Your task to perform on an android device: Add macbook air to the cart on bestbuy.com, then select checkout. Image 0: 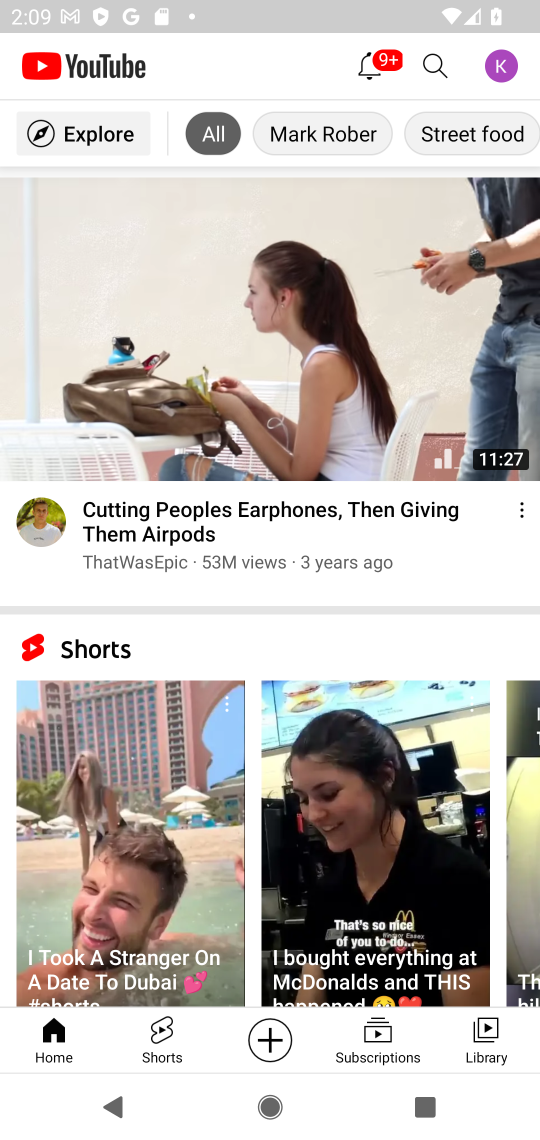
Step 0: press home button
Your task to perform on an android device: Add macbook air to the cart on bestbuy.com, then select checkout. Image 1: 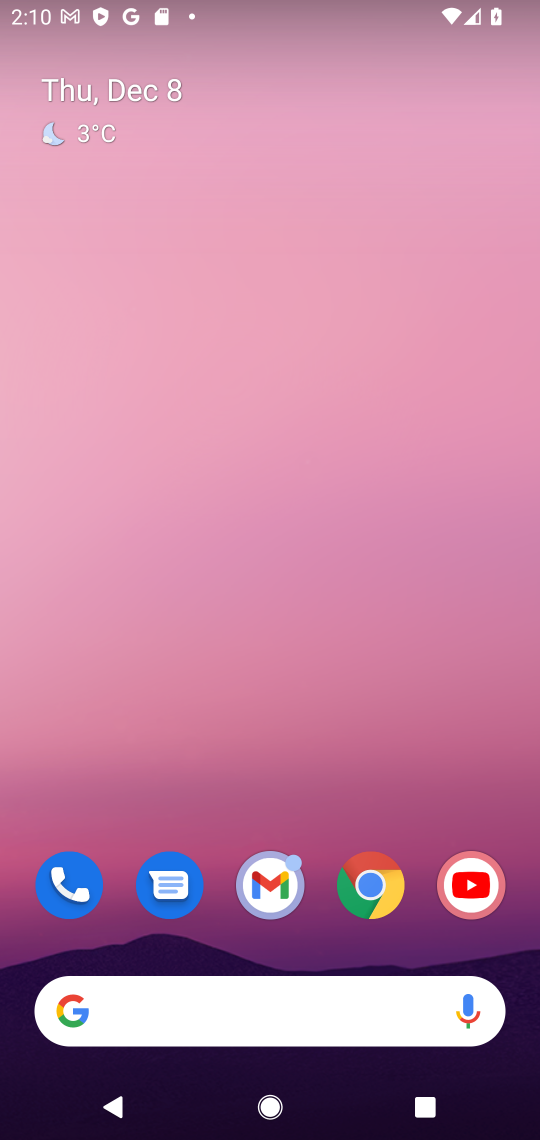
Step 1: click (367, 888)
Your task to perform on an android device: Add macbook air to the cart on bestbuy.com, then select checkout. Image 2: 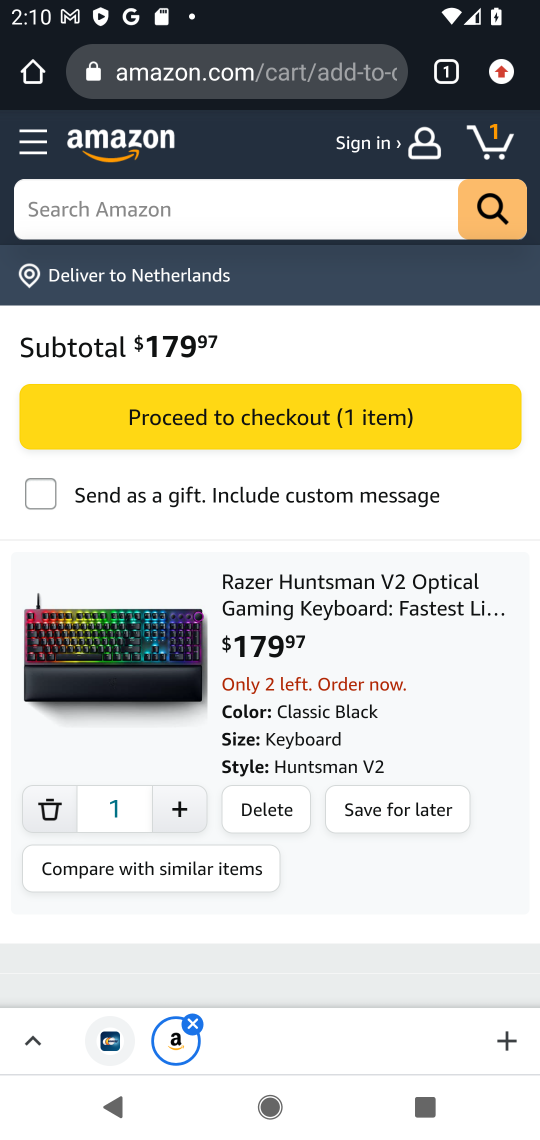
Step 2: click (329, 70)
Your task to perform on an android device: Add macbook air to the cart on bestbuy.com, then select checkout. Image 3: 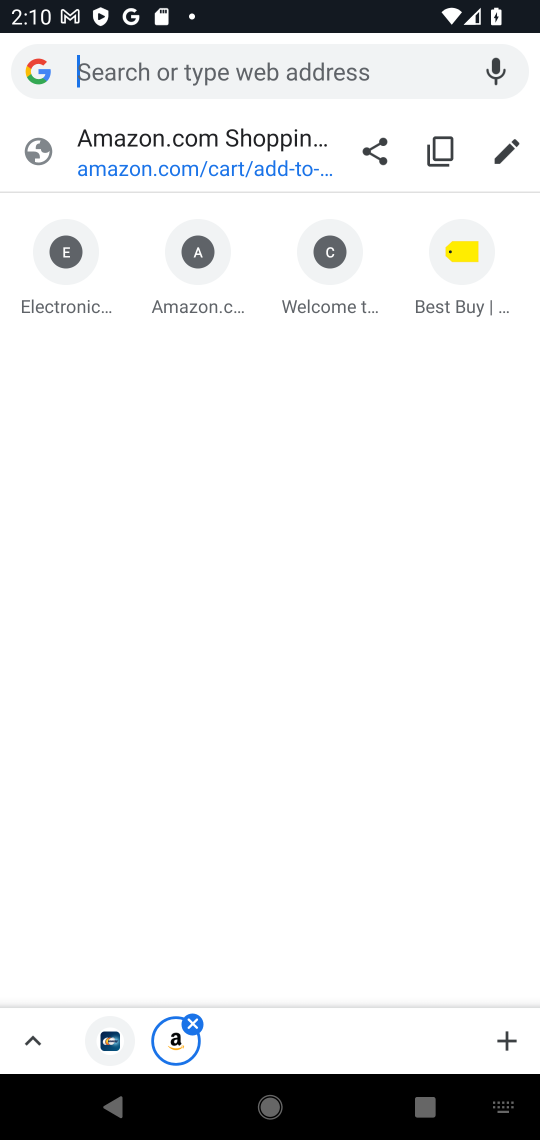
Step 3: type "bestbuy"
Your task to perform on an android device: Add macbook air to the cart on bestbuy.com, then select checkout. Image 4: 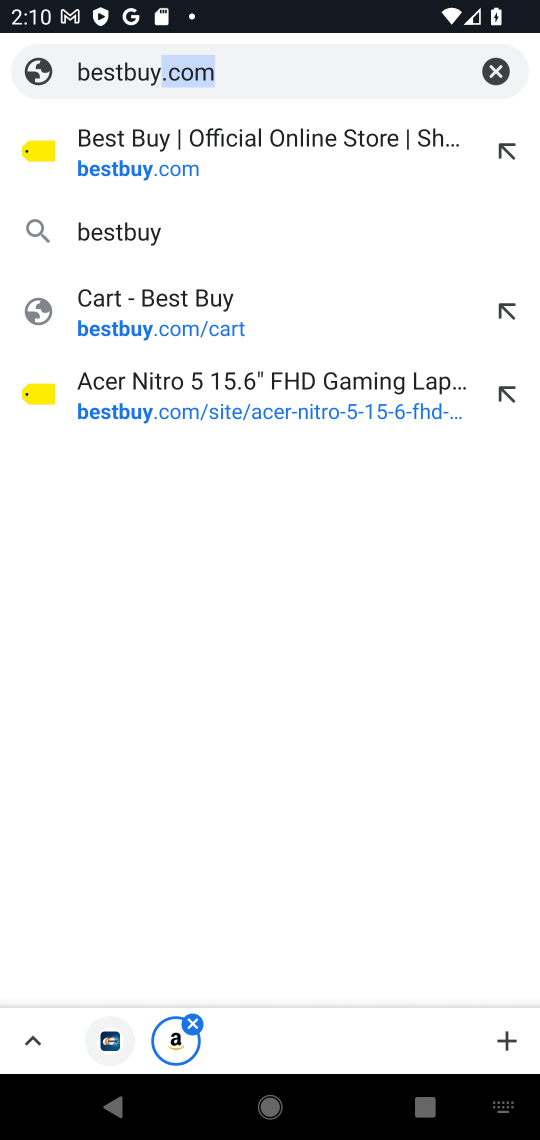
Step 4: click (155, 149)
Your task to perform on an android device: Add macbook air to the cart on bestbuy.com, then select checkout. Image 5: 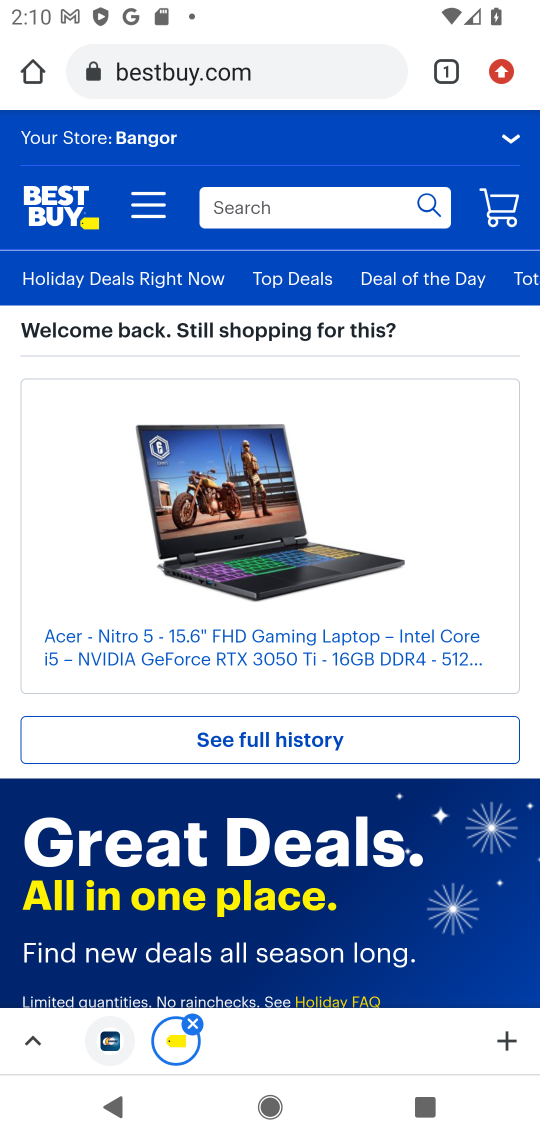
Step 5: click (373, 201)
Your task to perform on an android device: Add macbook air to the cart on bestbuy.com, then select checkout. Image 6: 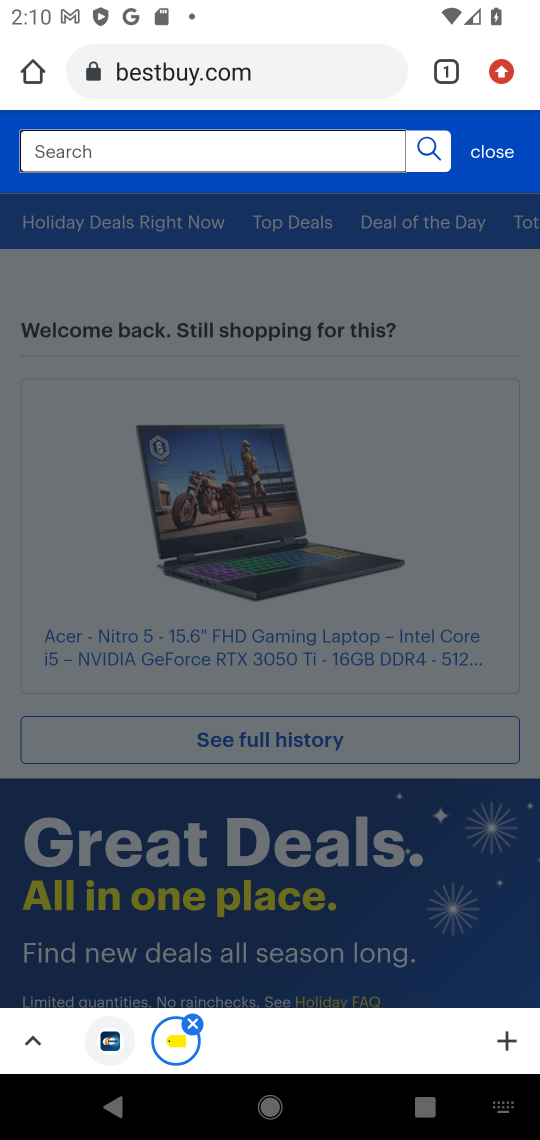
Step 6: type "macbook air"
Your task to perform on an android device: Add macbook air to the cart on bestbuy.com, then select checkout. Image 7: 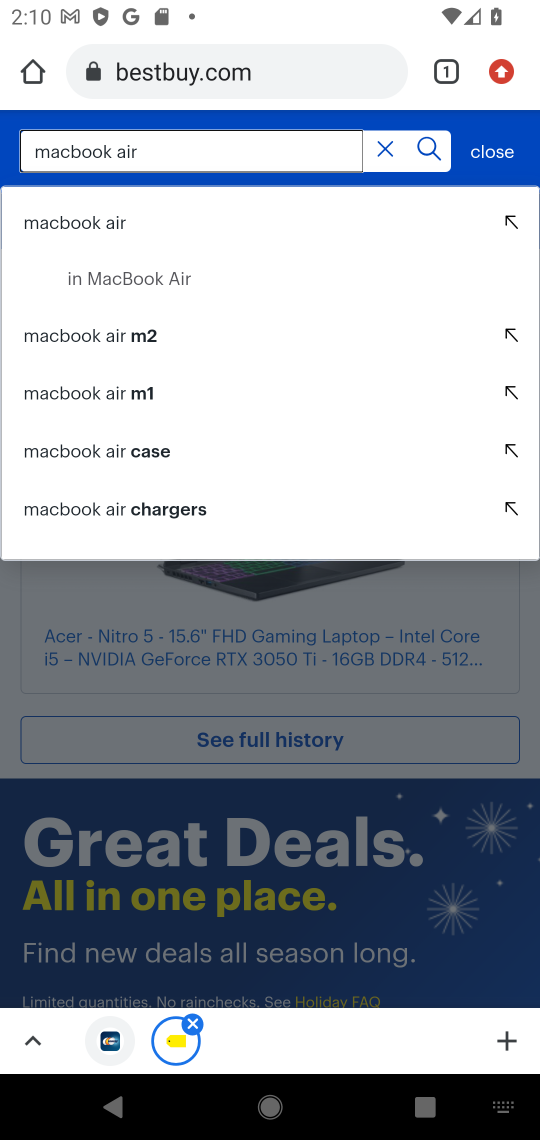
Step 7: click (102, 233)
Your task to perform on an android device: Add macbook air to the cart on bestbuy.com, then select checkout. Image 8: 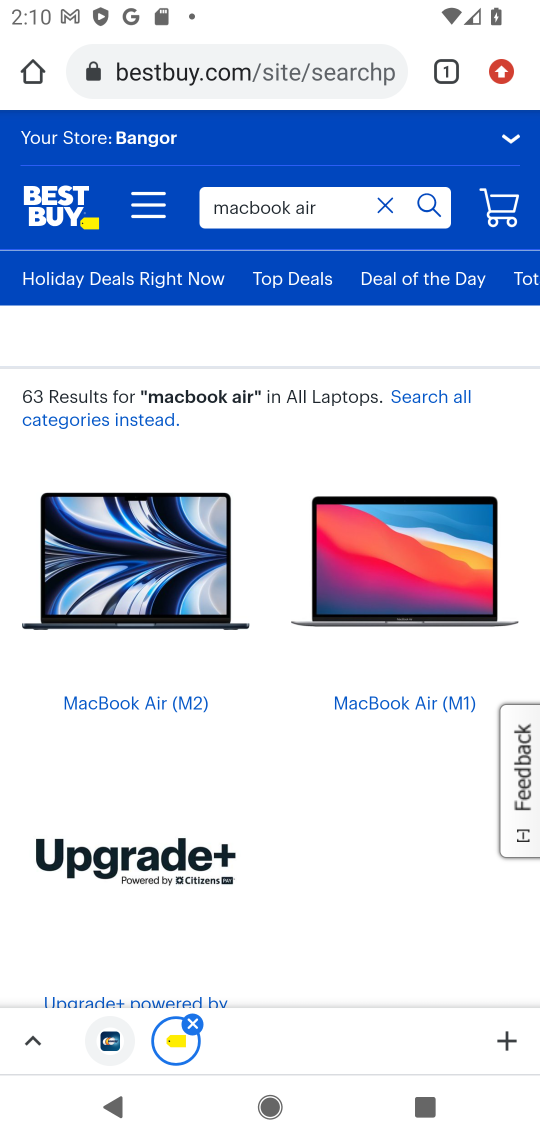
Step 8: drag from (196, 905) to (150, 219)
Your task to perform on an android device: Add macbook air to the cart on bestbuy.com, then select checkout. Image 9: 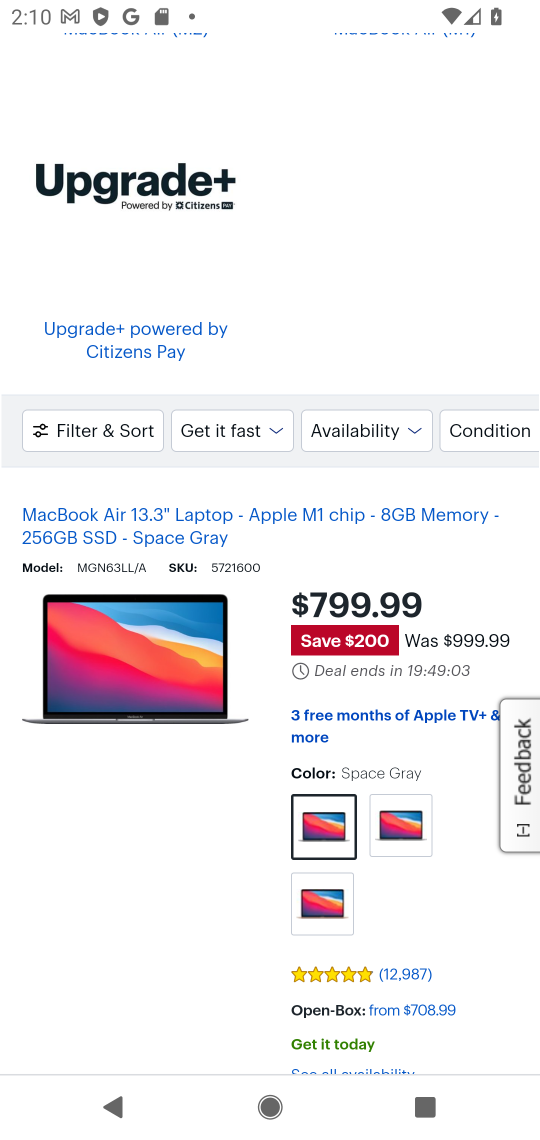
Step 9: drag from (421, 934) to (365, 398)
Your task to perform on an android device: Add macbook air to the cart on bestbuy.com, then select checkout. Image 10: 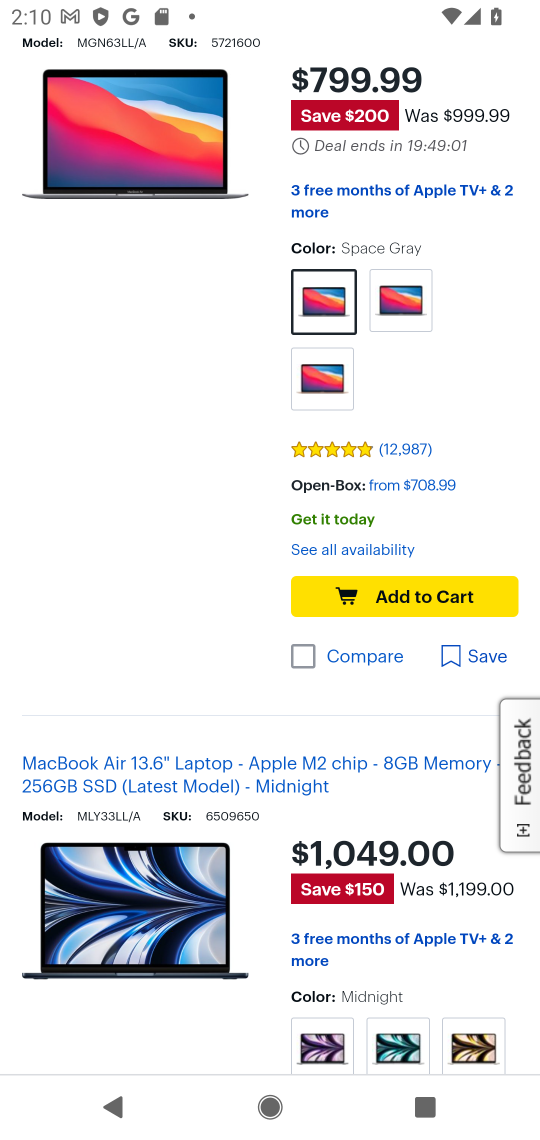
Step 10: click (421, 596)
Your task to perform on an android device: Add macbook air to the cart on bestbuy.com, then select checkout. Image 11: 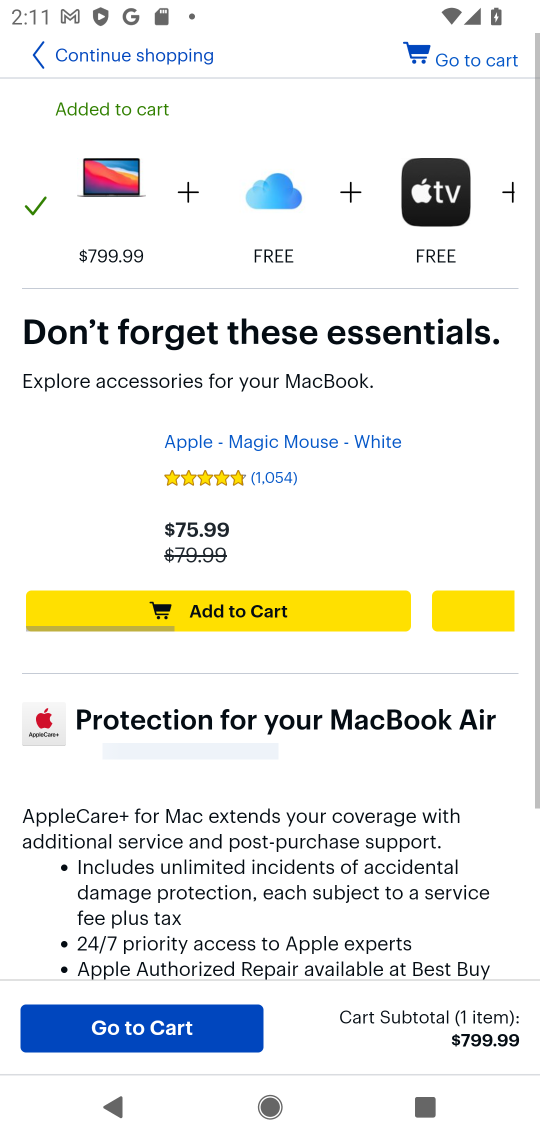
Step 11: click (116, 1034)
Your task to perform on an android device: Add macbook air to the cart on bestbuy.com, then select checkout. Image 12: 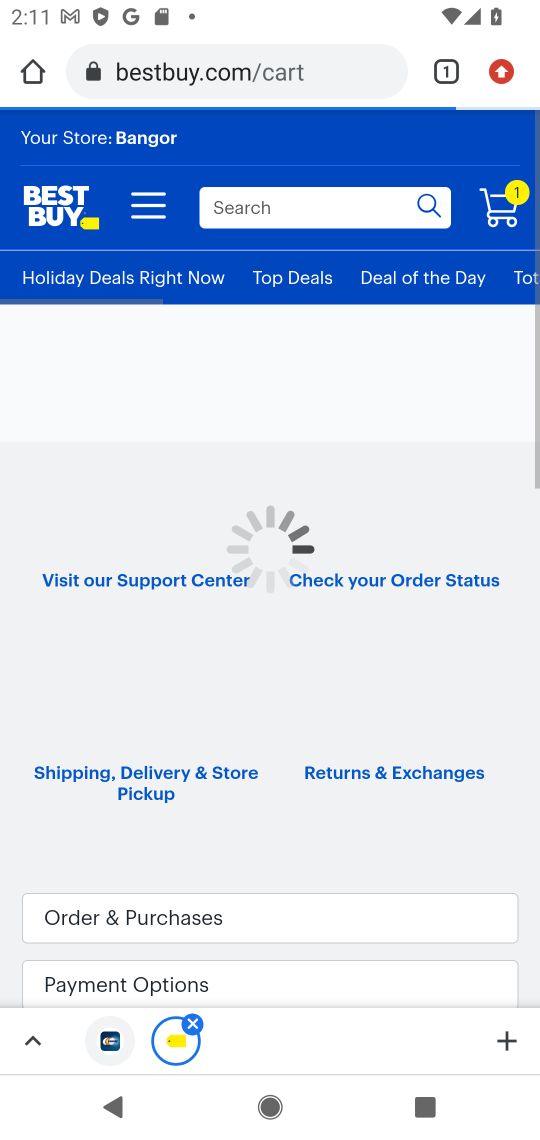
Step 12: task complete